Your task to perform on an android device: Is it going to rain today? Image 0: 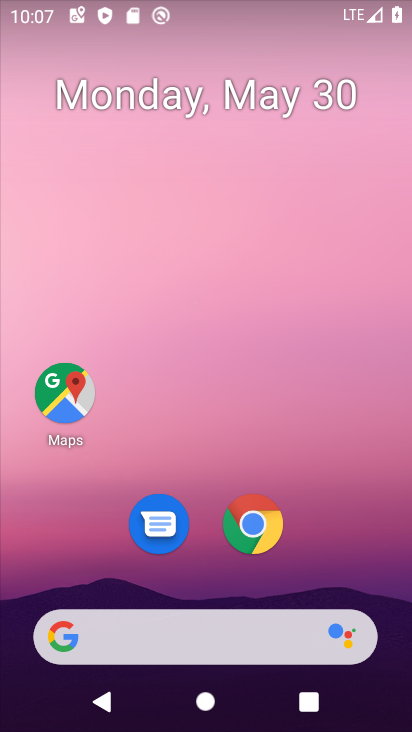
Step 0: click (257, 635)
Your task to perform on an android device: Is it going to rain today? Image 1: 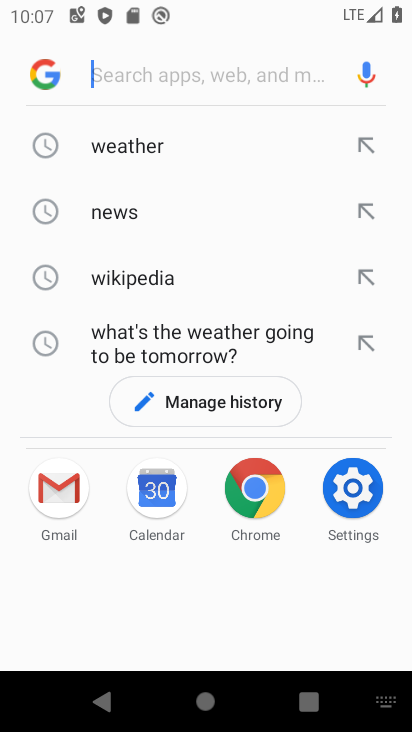
Step 1: click (140, 150)
Your task to perform on an android device: Is it going to rain today? Image 2: 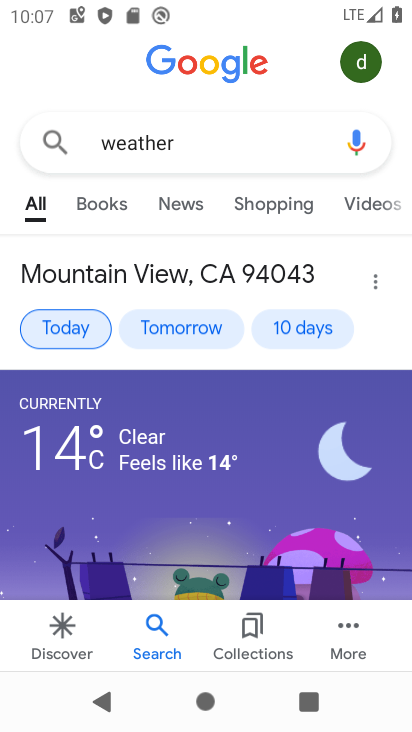
Step 2: click (81, 322)
Your task to perform on an android device: Is it going to rain today? Image 3: 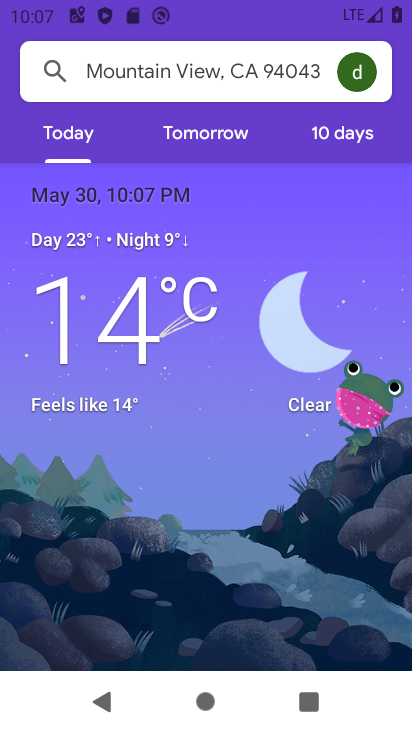
Step 3: task complete